Your task to perform on an android device: Go to calendar. Show me events next week Image 0: 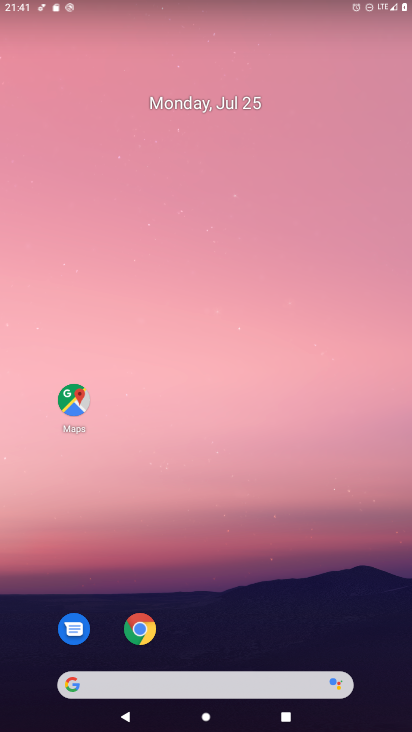
Step 0: drag from (230, 688) to (211, 46)
Your task to perform on an android device: Go to calendar. Show me events next week Image 1: 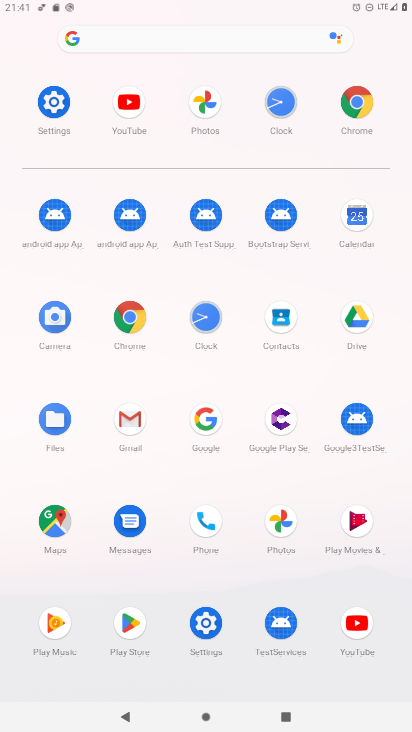
Step 1: click (355, 217)
Your task to perform on an android device: Go to calendar. Show me events next week Image 2: 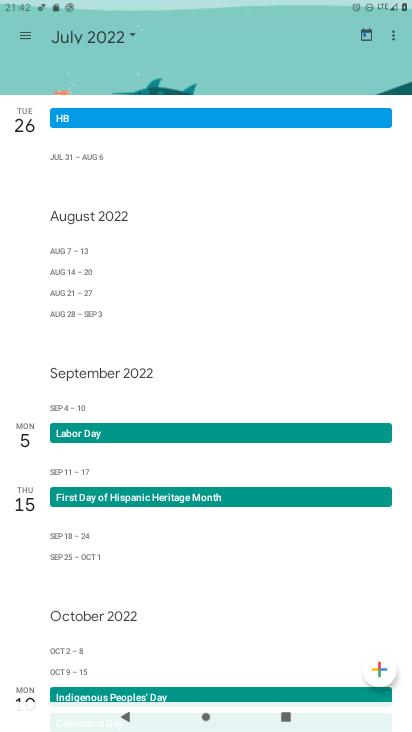
Step 2: click (369, 36)
Your task to perform on an android device: Go to calendar. Show me events next week Image 3: 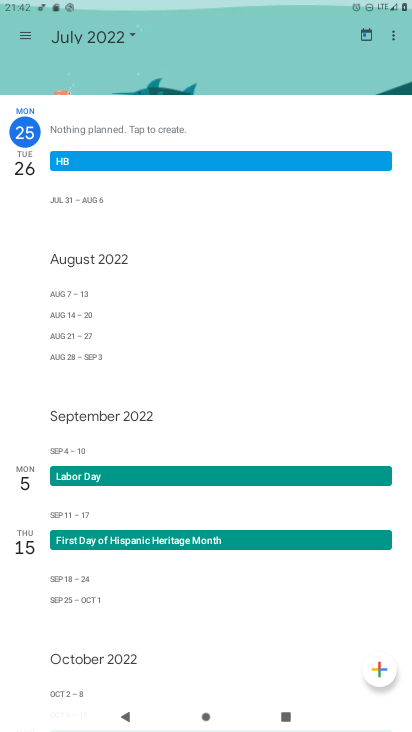
Step 3: click (133, 34)
Your task to perform on an android device: Go to calendar. Show me events next week Image 4: 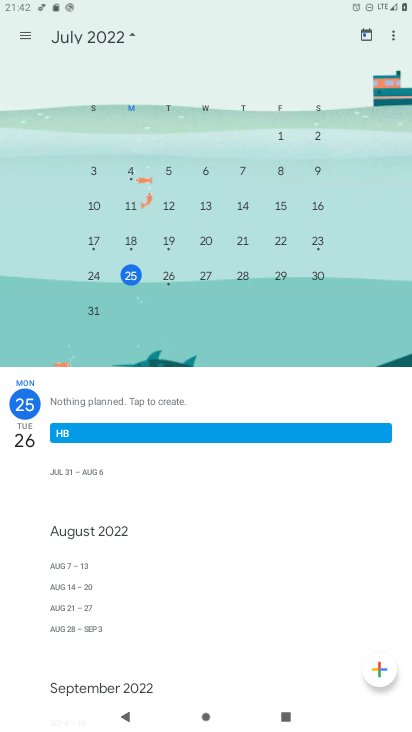
Step 4: drag from (288, 260) to (0, 232)
Your task to perform on an android device: Go to calendar. Show me events next week Image 5: 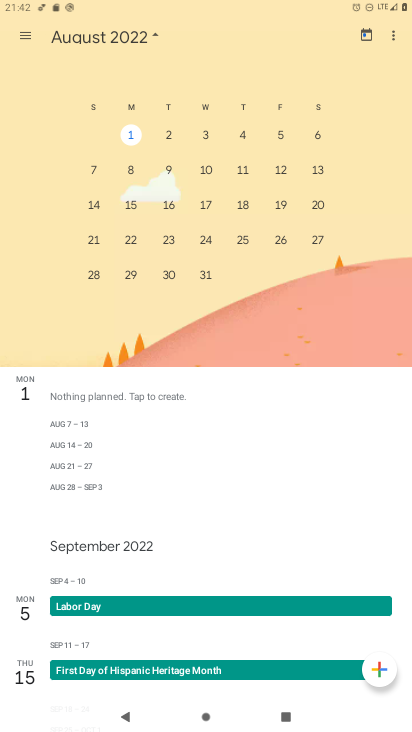
Step 5: click (136, 136)
Your task to perform on an android device: Go to calendar. Show me events next week Image 6: 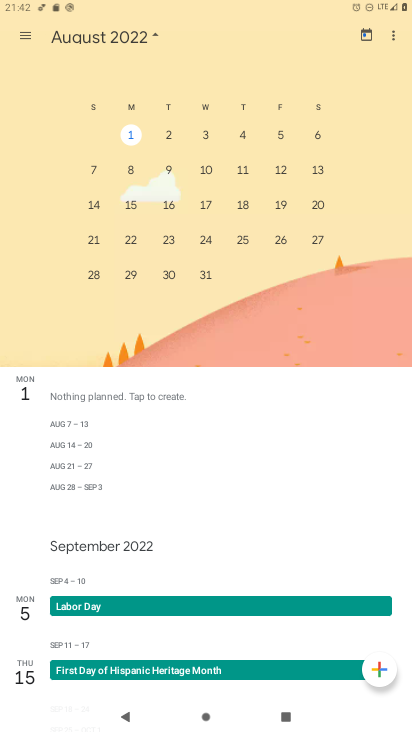
Step 6: click (163, 392)
Your task to perform on an android device: Go to calendar. Show me events next week Image 7: 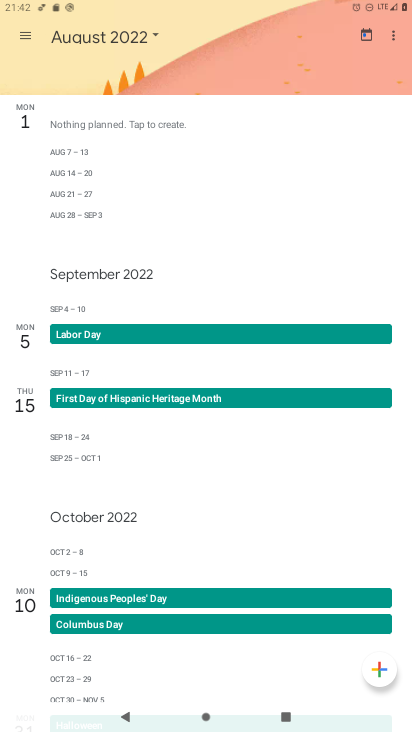
Step 7: click (122, 125)
Your task to perform on an android device: Go to calendar. Show me events next week Image 8: 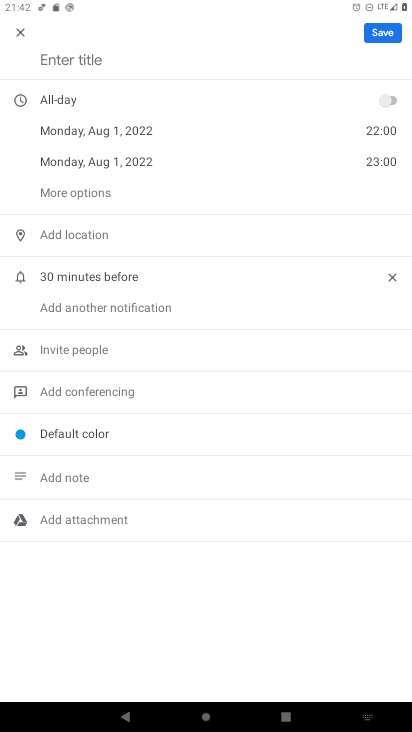
Step 8: type "event"
Your task to perform on an android device: Go to calendar. Show me events next week Image 9: 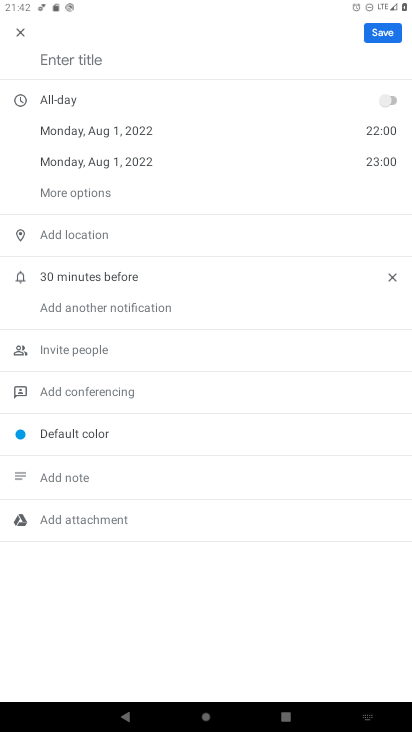
Step 9: click (381, 102)
Your task to perform on an android device: Go to calendar. Show me events next week Image 10: 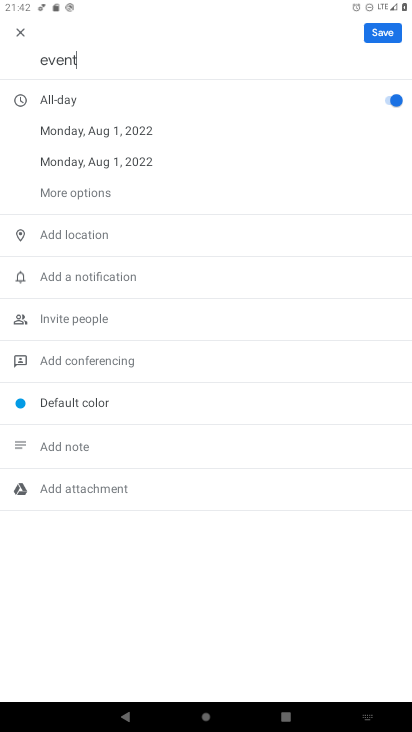
Step 10: click (384, 30)
Your task to perform on an android device: Go to calendar. Show me events next week Image 11: 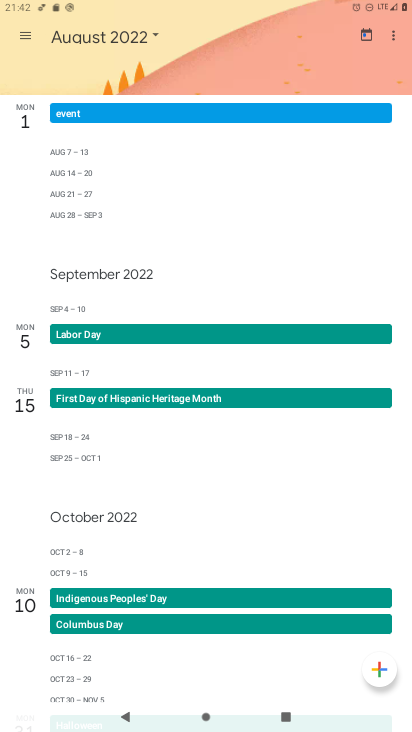
Step 11: task complete